Your task to perform on an android device: What's the weather going to be this weekend? Image 0: 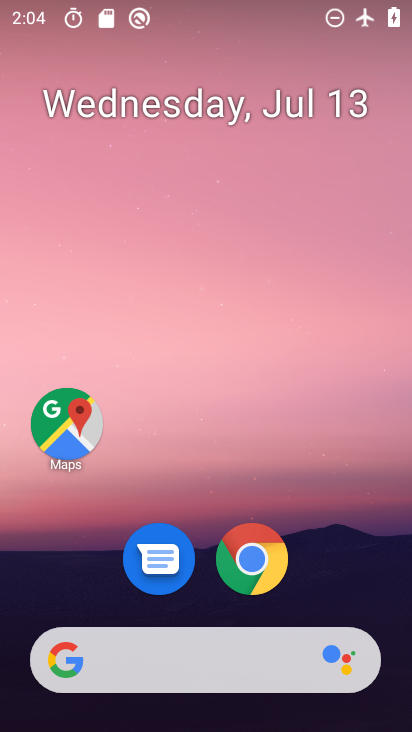
Step 0: press home button
Your task to perform on an android device: What's the weather going to be this weekend? Image 1: 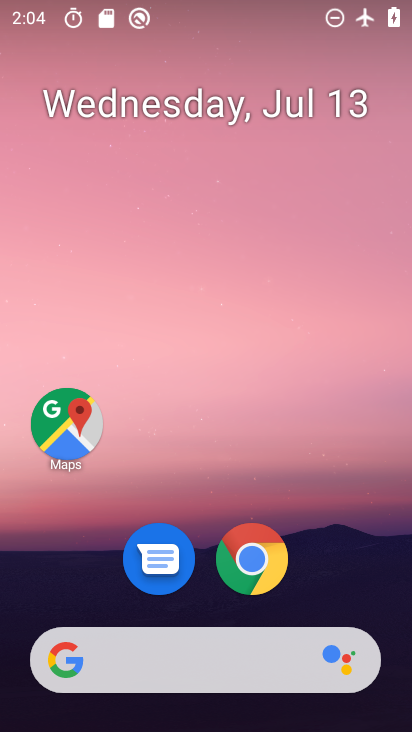
Step 1: drag from (218, 676) to (275, 190)
Your task to perform on an android device: What's the weather going to be this weekend? Image 2: 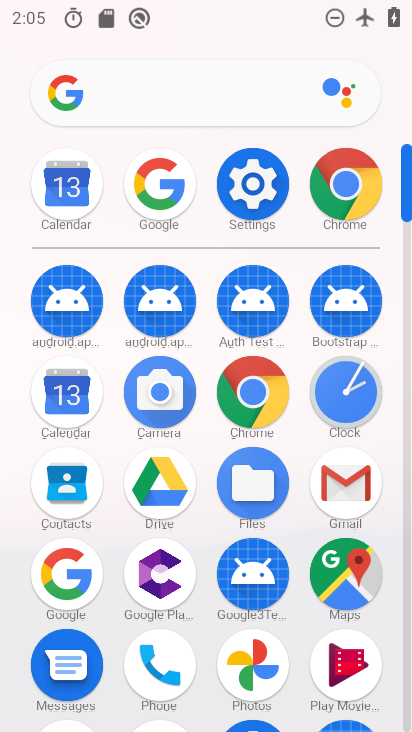
Step 2: drag from (224, 538) to (231, 417)
Your task to perform on an android device: What's the weather going to be this weekend? Image 3: 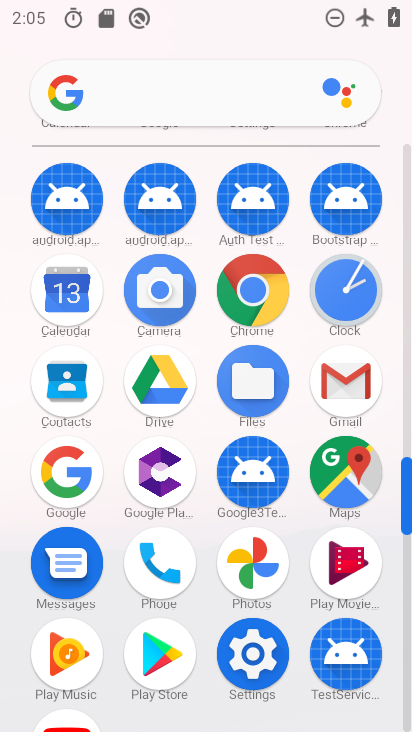
Step 3: click (58, 476)
Your task to perform on an android device: What's the weather going to be this weekend? Image 4: 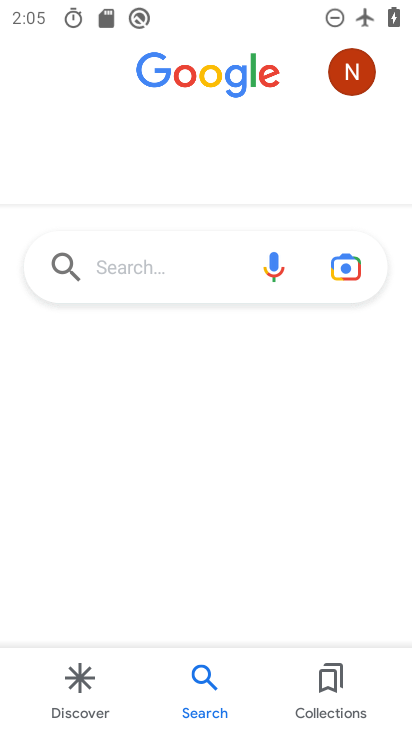
Step 4: click (125, 277)
Your task to perform on an android device: What's the weather going to be this weekend? Image 5: 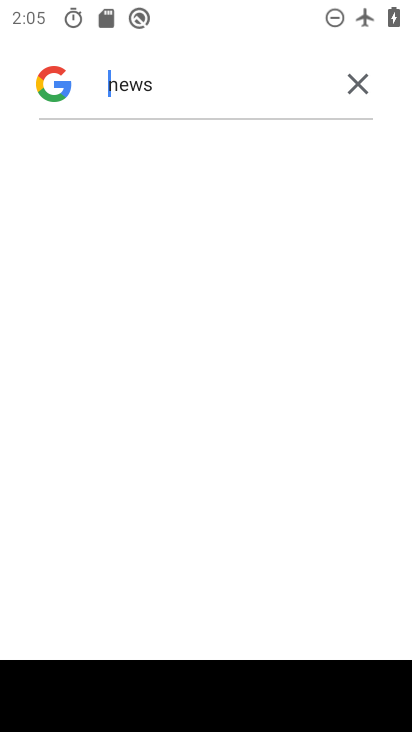
Step 5: click (359, 93)
Your task to perform on an android device: What's the weather going to be this weekend? Image 6: 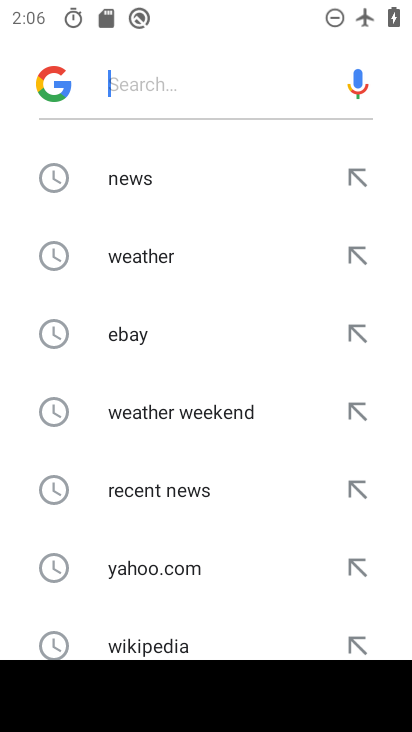
Step 6: click (221, 407)
Your task to perform on an android device: What's the weather going to be this weekend? Image 7: 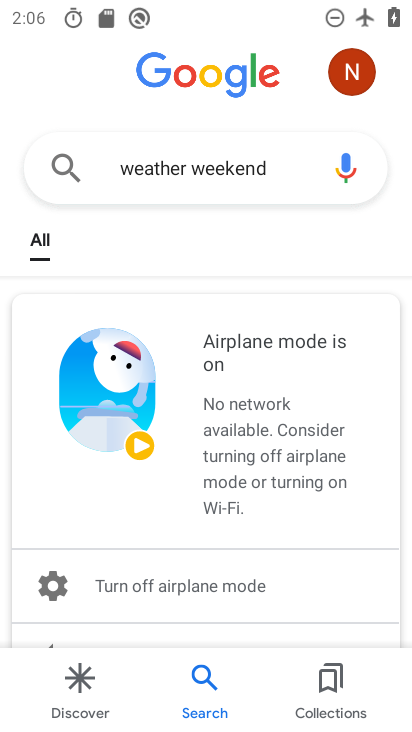
Step 7: task complete